Your task to perform on an android device: see sites visited before in the chrome app Image 0: 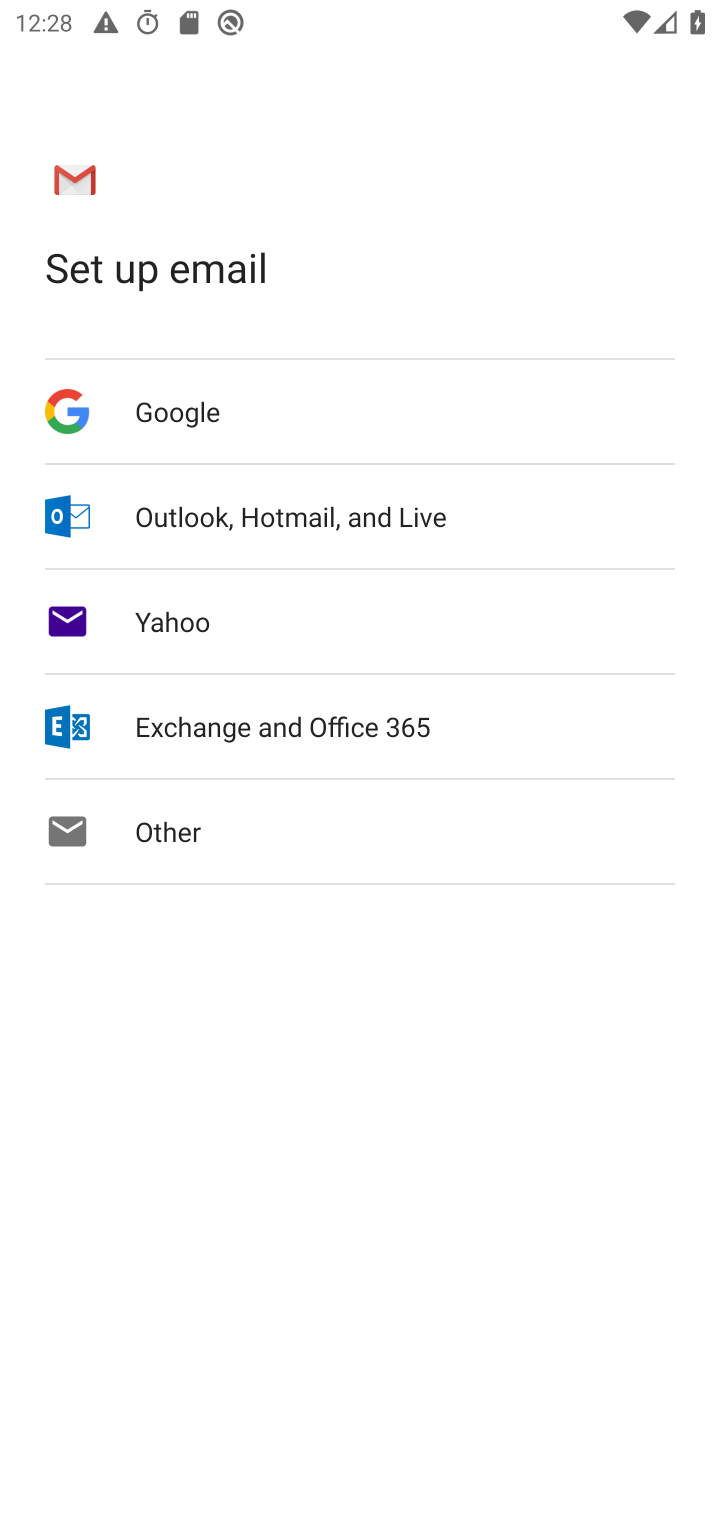
Step 0: press home button
Your task to perform on an android device: see sites visited before in the chrome app Image 1: 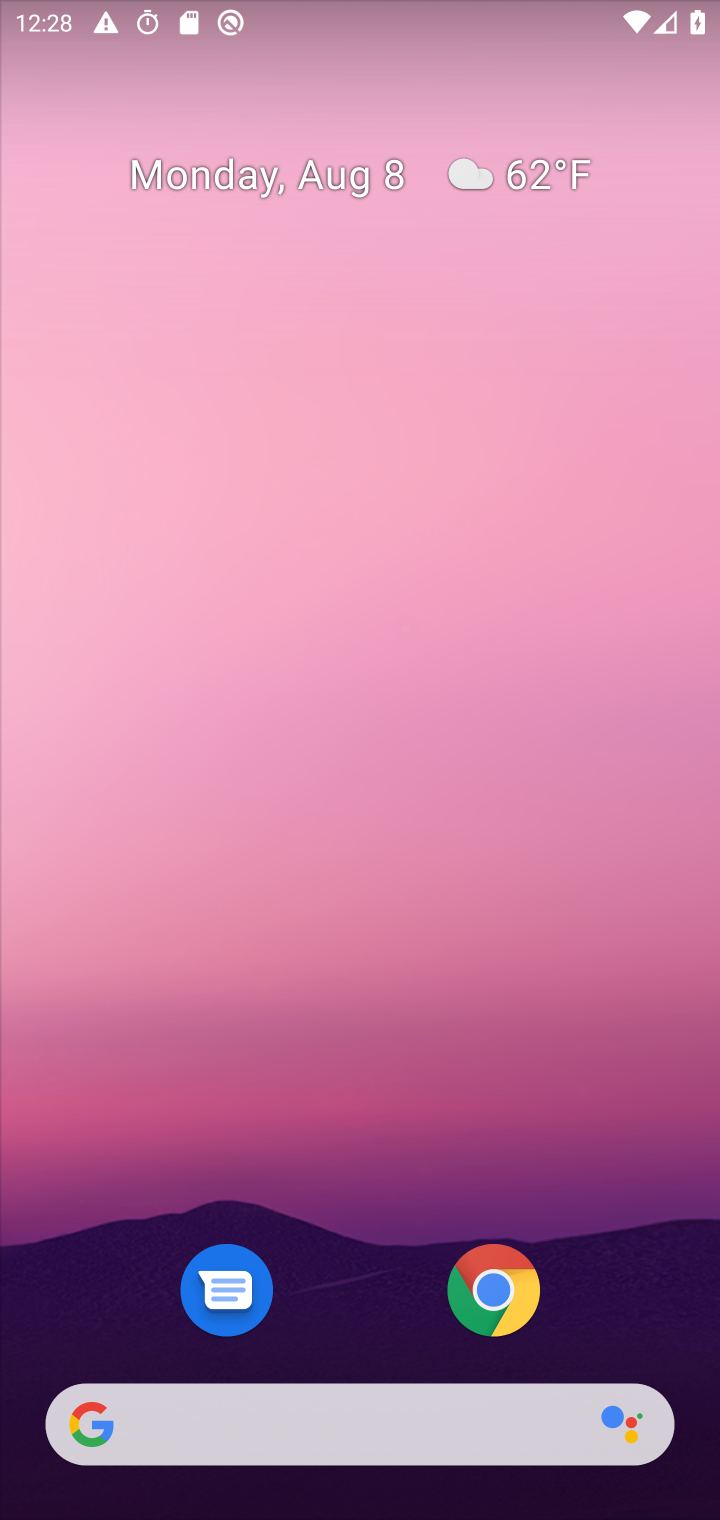
Step 1: drag from (339, 1286) to (313, 335)
Your task to perform on an android device: see sites visited before in the chrome app Image 2: 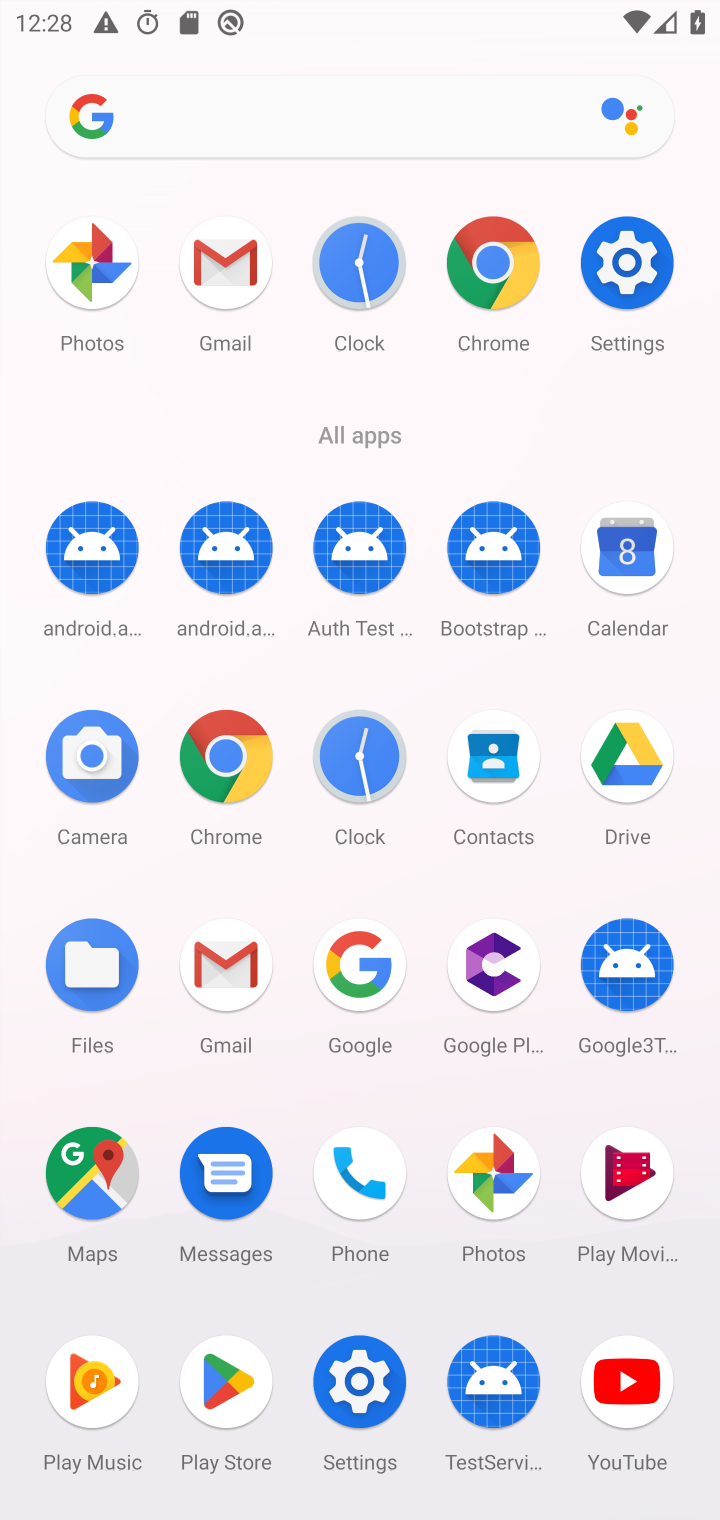
Step 2: click (237, 776)
Your task to perform on an android device: see sites visited before in the chrome app Image 3: 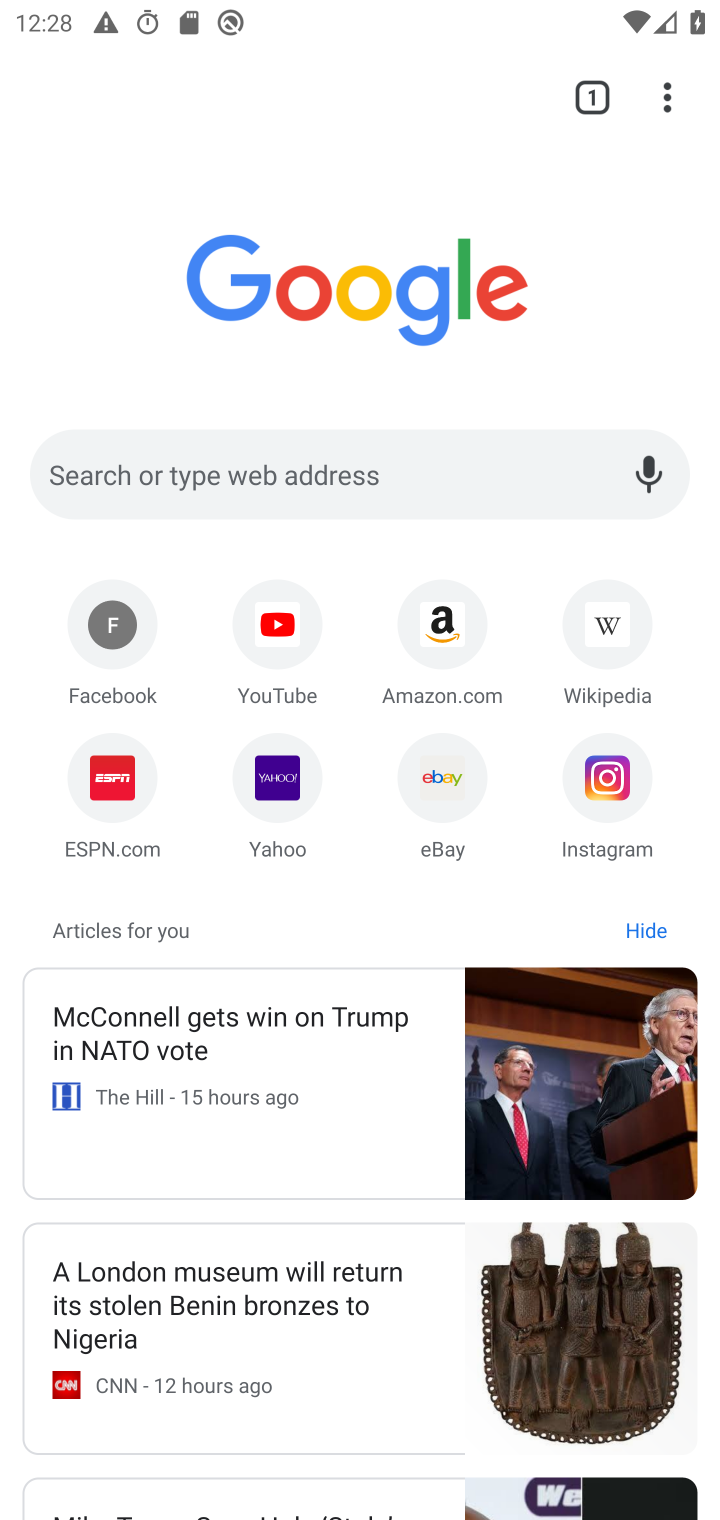
Step 3: click (651, 102)
Your task to perform on an android device: see sites visited before in the chrome app Image 4: 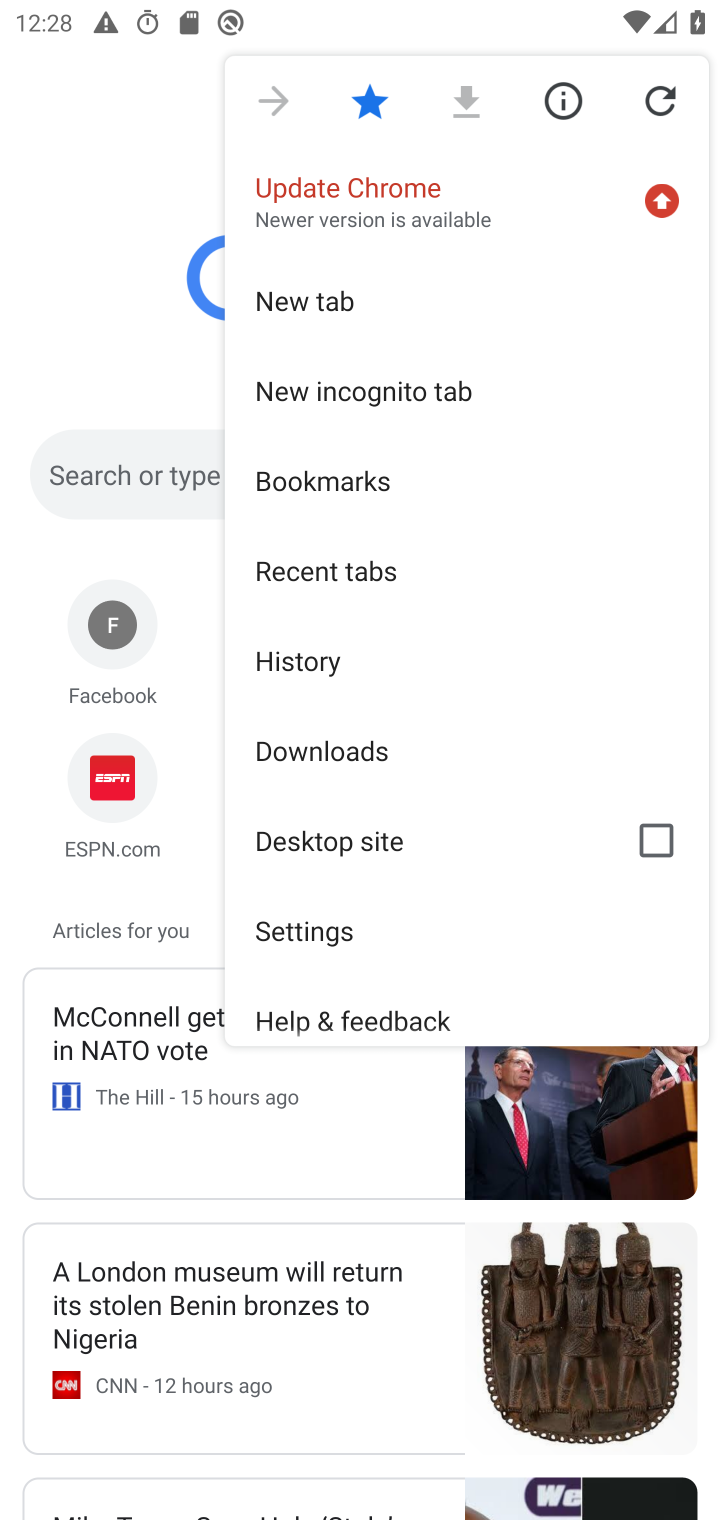
Step 4: click (320, 668)
Your task to perform on an android device: see sites visited before in the chrome app Image 5: 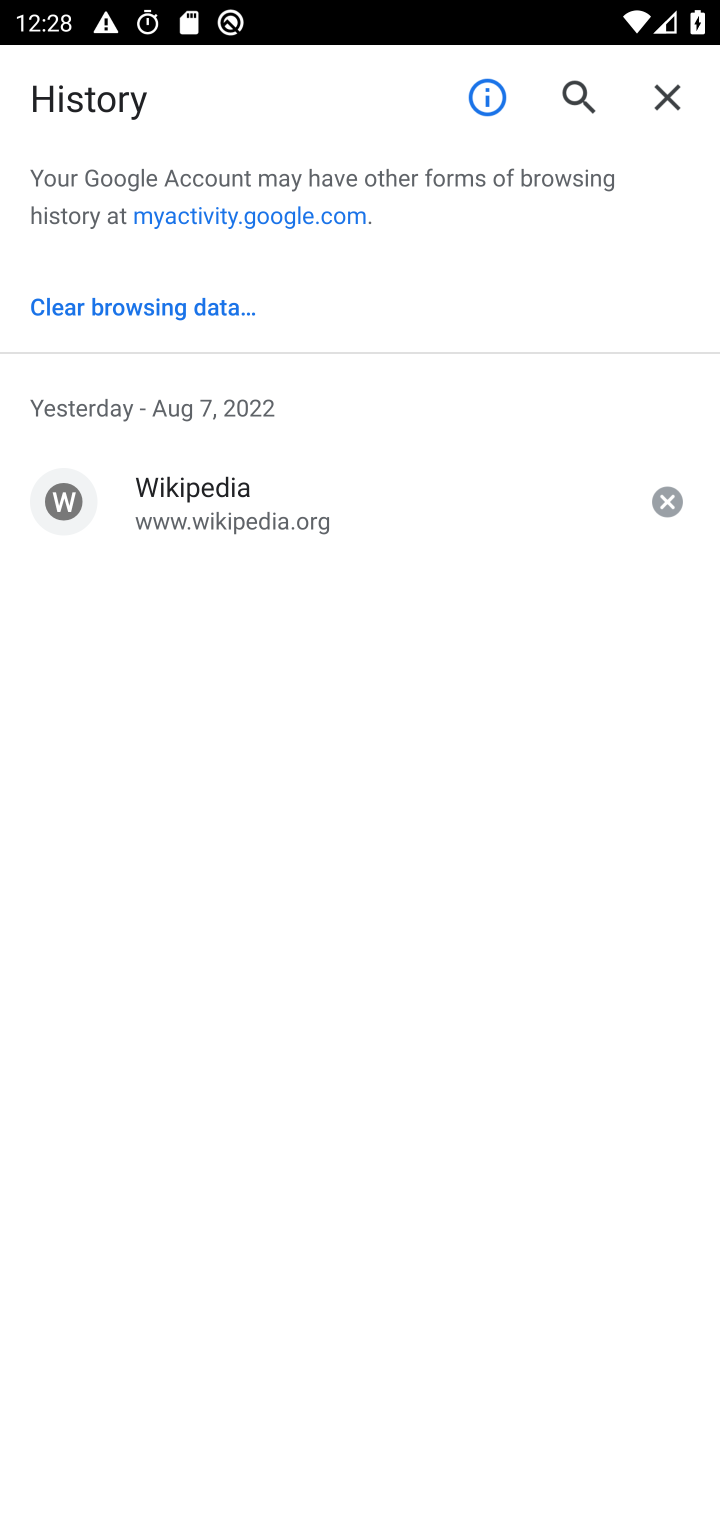
Step 5: task complete